Your task to perform on an android device: Search for pizza restaurants on Maps Image 0: 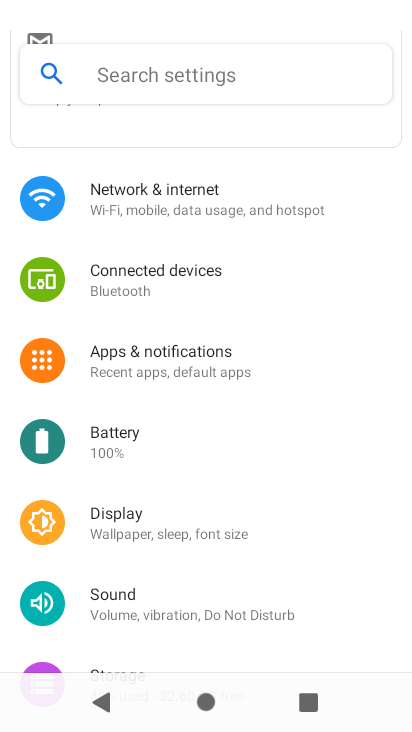
Step 0: press home button
Your task to perform on an android device: Search for pizza restaurants on Maps Image 1: 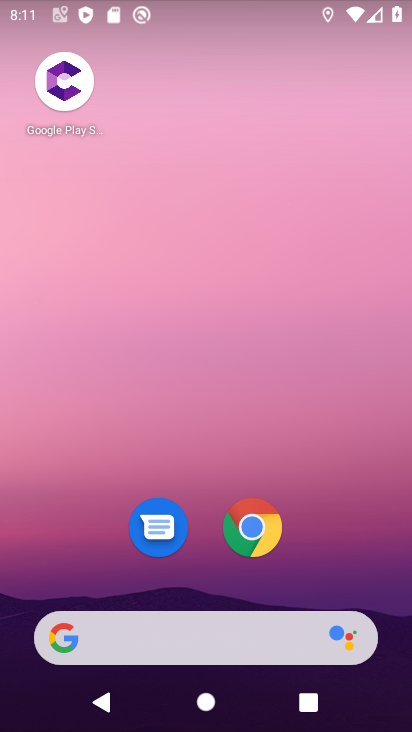
Step 1: drag from (348, 527) to (390, 23)
Your task to perform on an android device: Search for pizza restaurants on Maps Image 2: 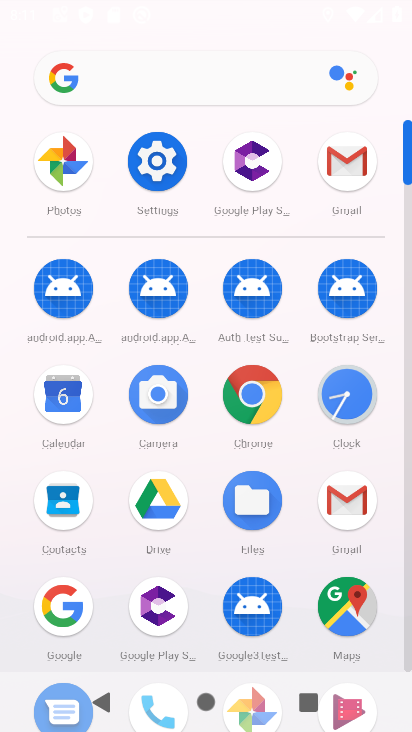
Step 2: drag from (196, 529) to (194, 327)
Your task to perform on an android device: Search for pizza restaurants on Maps Image 3: 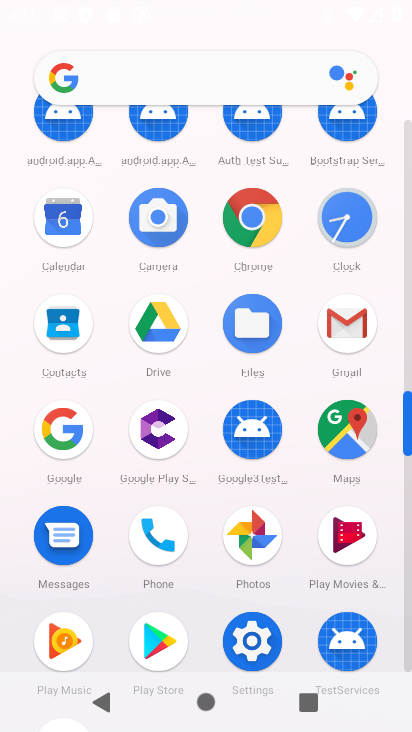
Step 3: click (353, 435)
Your task to perform on an android device: Search for pizza restaurants on Maps Image 4: 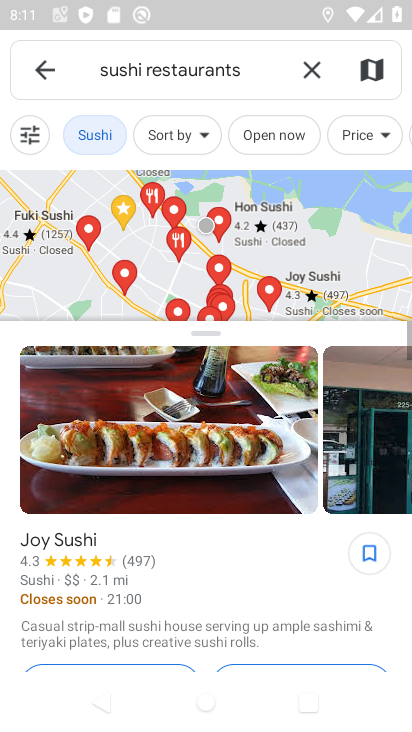
Step 4: click (306, 63)
Your task to perform on an android device: Search for pizza restaurants on Maps Image 5: 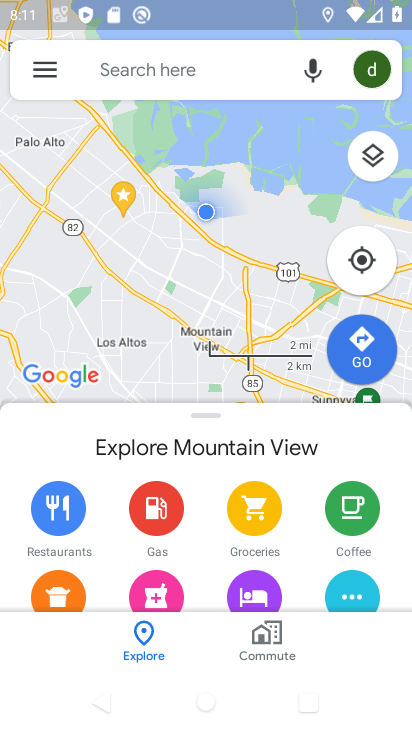
Step 5: click (225, 69)
Your task to perform on an android device: Search for pizza restaurants on Maps Image 6: 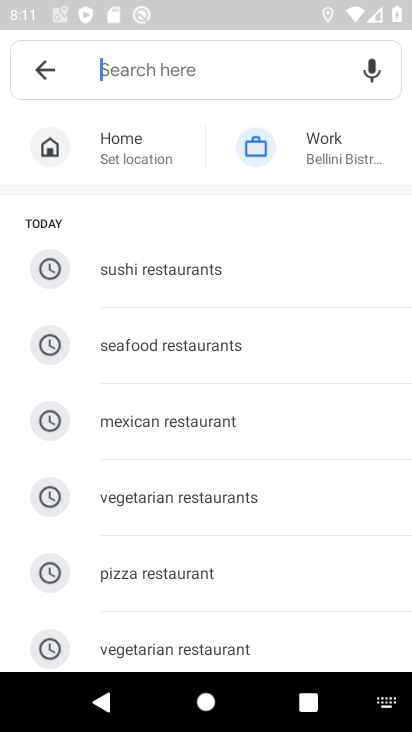
Step 6: click (145, 569)
Your task to perform on an android device: Search for pizza restaurants on Maps Image 7: 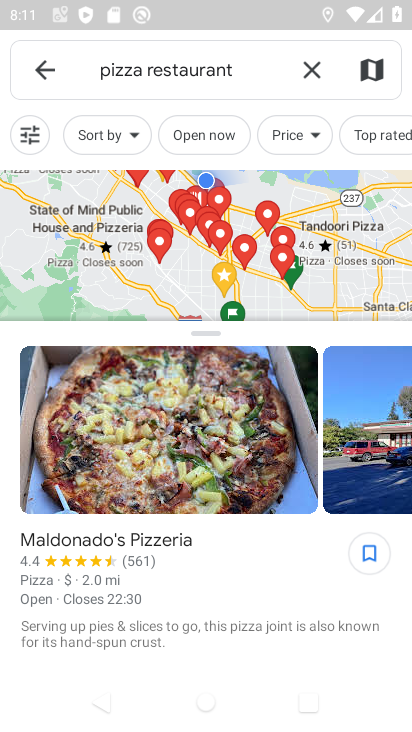
Step 7: task complete